Your task to perform on an android device: open the mobile data screen to see how much data has been used Image 0: 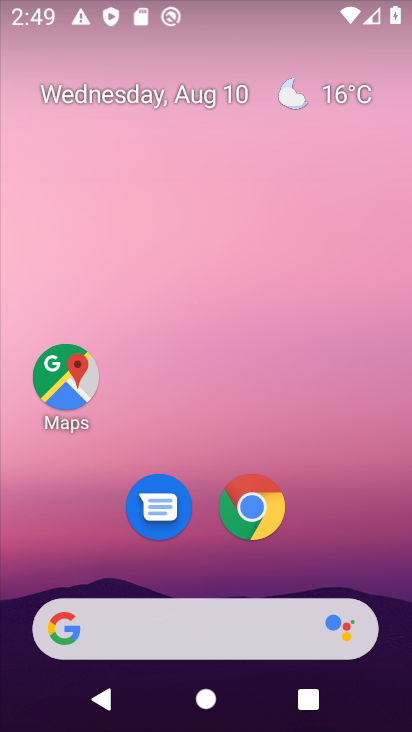
Step 0: drag from (362, 542) to (294, 87)
Your task to perform on an android device: open the mobile data screen to see how much data has been used Image 1: 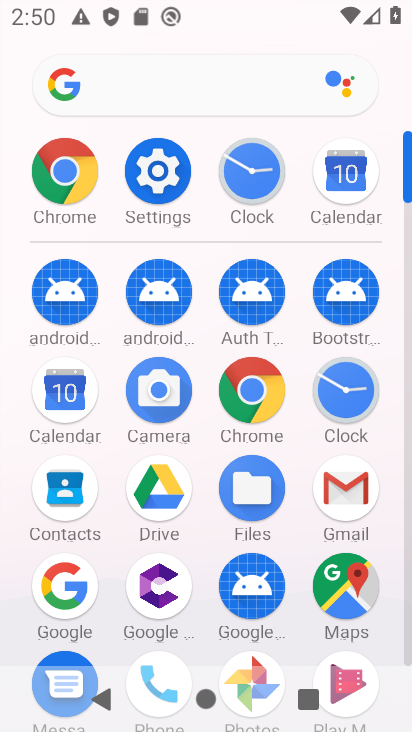
Step 1: click (155, 180)
Your task to perform on an android device: open the mobile data screen to see how much data has been used Image 2: 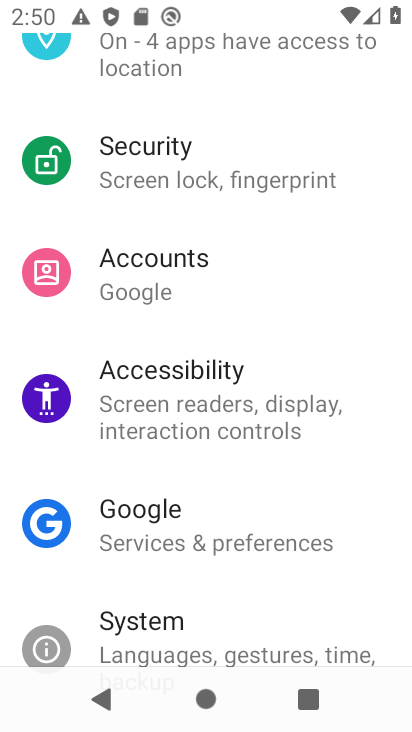
Step 2: drag from (228, 129) to (262, 567)
Your task to perform on an android device: open the mobile data screen to see how much data has been used Image 3: 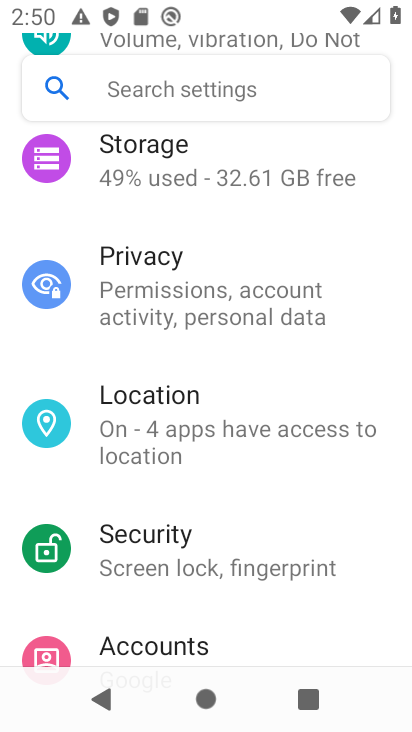
Step 3: drag from (300, 147) to (307, 547)
Your task to perform on an android device: open the mobile data screen to see how much data has been used Image 4: 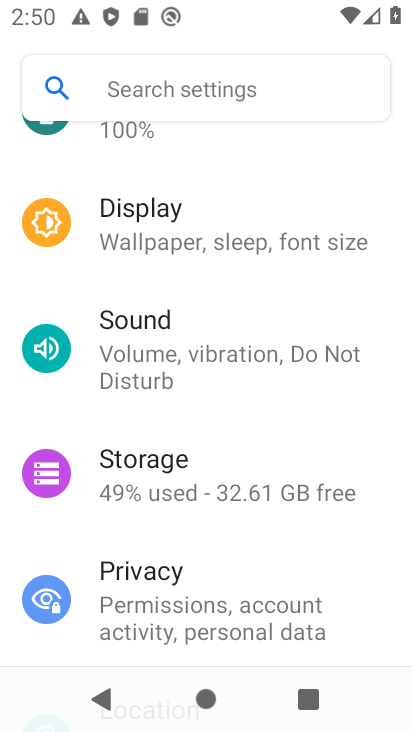
Step 4: drag from (261, 172) to (292, 587)
Your task to perform on an android device: open the mobile data screen to see how much data has been used Image 5: 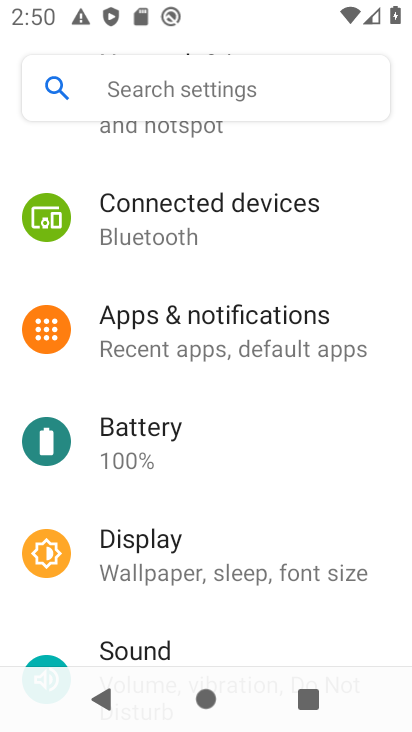
Step 5: drag from (265, 214) to (261, 553)
Your task to perform on an android device: open the mobile data screen to see how much data has been used Image 6: 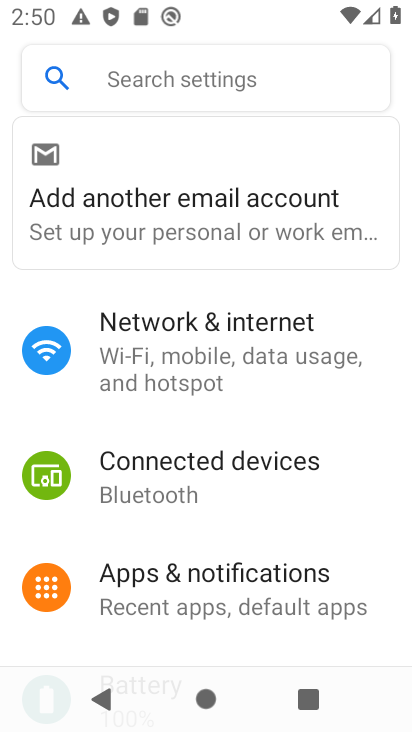
Step 6: click (181, 314)
Your task to perform on an android device: open the mobile data screen to see how much data has been used Image 7: 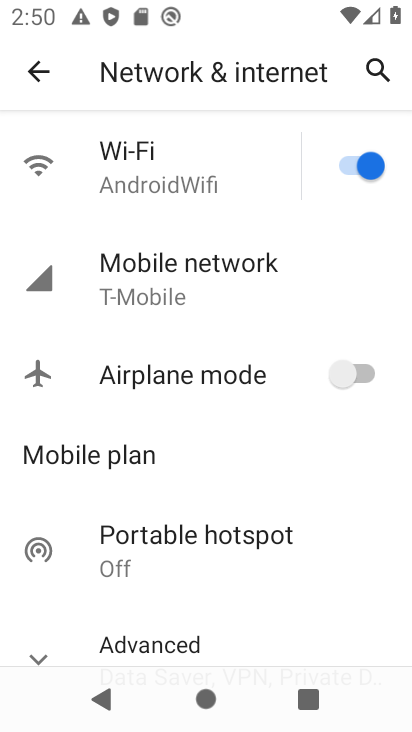
Step 7: click (219, 271)
Your task to perform on an android device: open the mobile data screen to see how much data has been used Image 8: 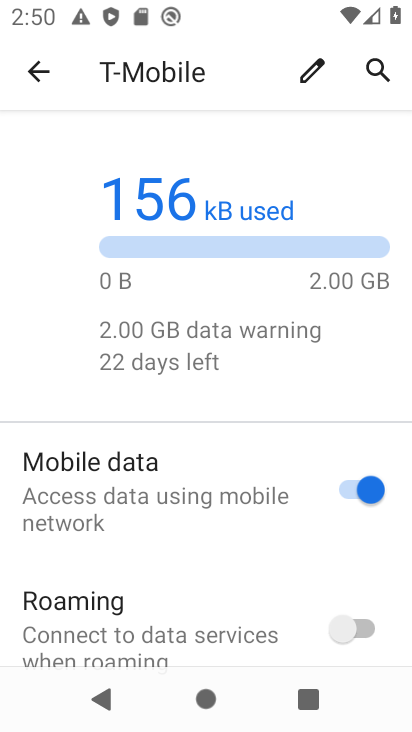
Step 8: task complete